Your task to perform on an android device: set an alarm Image 0: 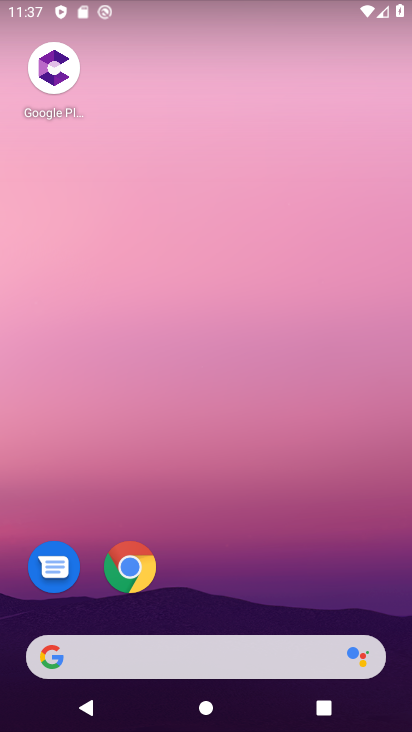
Step 0: drag from (218, 621) to (318, 83)
Your task to perform on an android device: set an alarm Image 1: 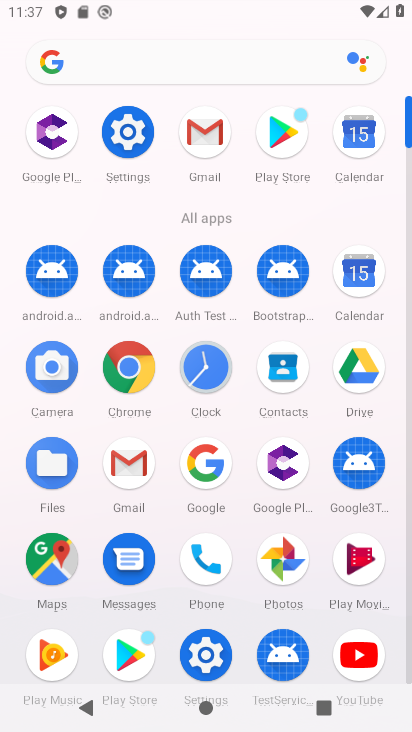
Step 1: click (205, 374)
Your task to perform on an android device: set an alarm Image 2: 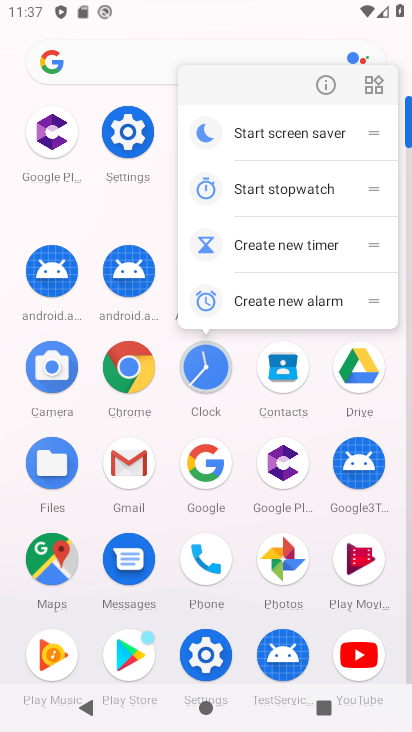
Step 2: click (205, 369)
Your task to perform on an android device: set an alarm Image 3: 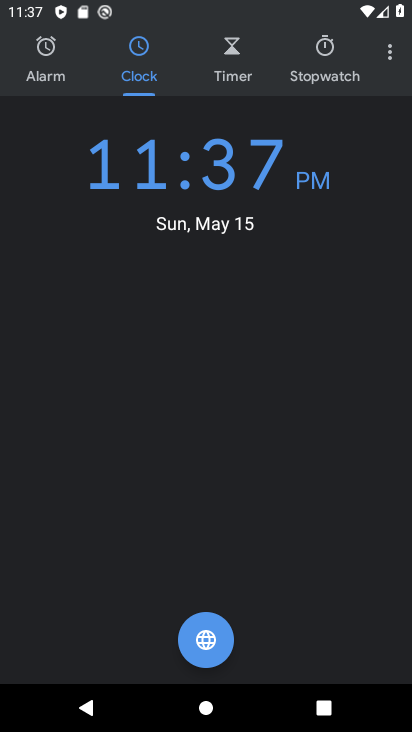
Step 3: click (54, 68)
Your task to perform on an android device: set an alarm Image 4: 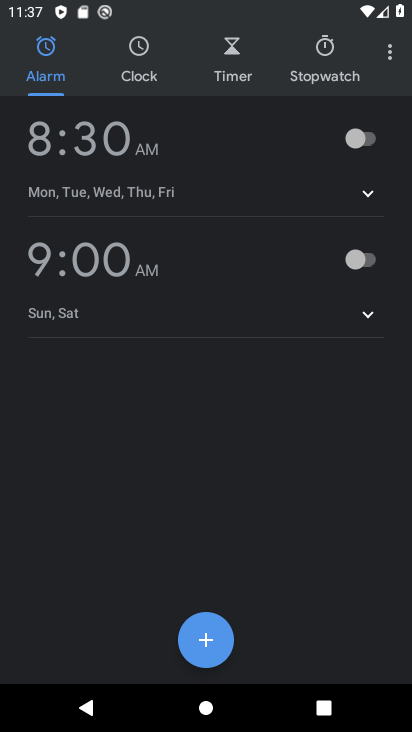
Step 4: click (202, 636)
Your task to perform on an android device: set an alarm Image 5: 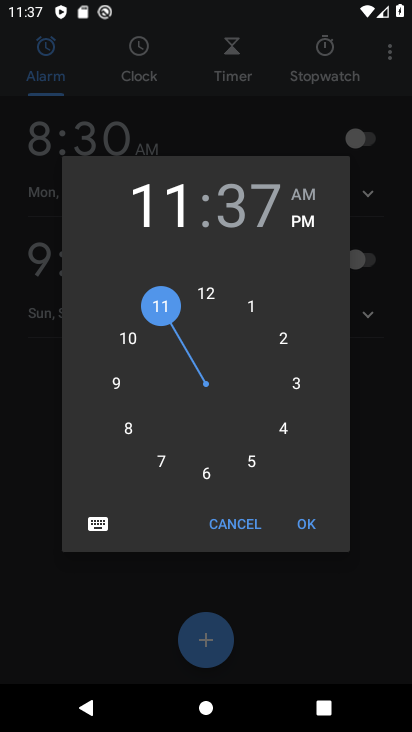
Step 5: click (307, 524)
Your task to perform on an android device: set an alarm Image 6: 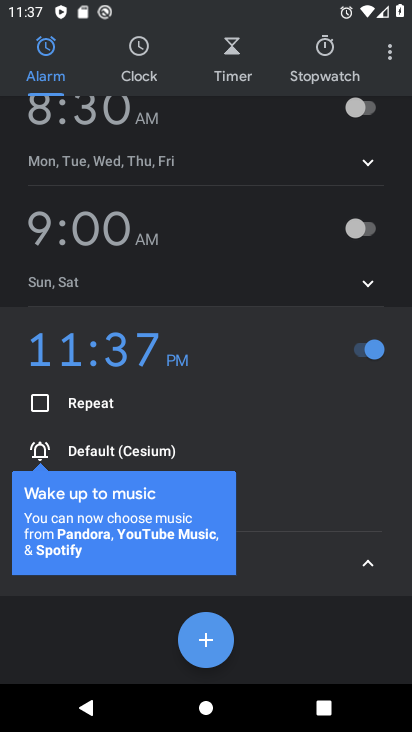
Step 6: click (361, 563)
Your task to perform on an android device: set an alarm Image 7: 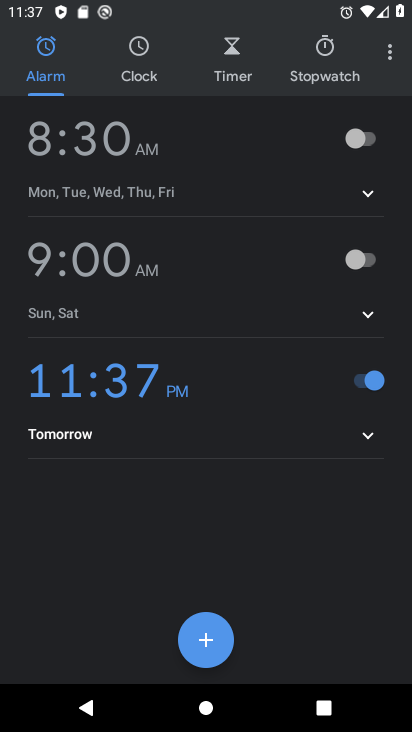
Step 7: task complete